Your task to perform on an android device: set the stopwatch Image 0: 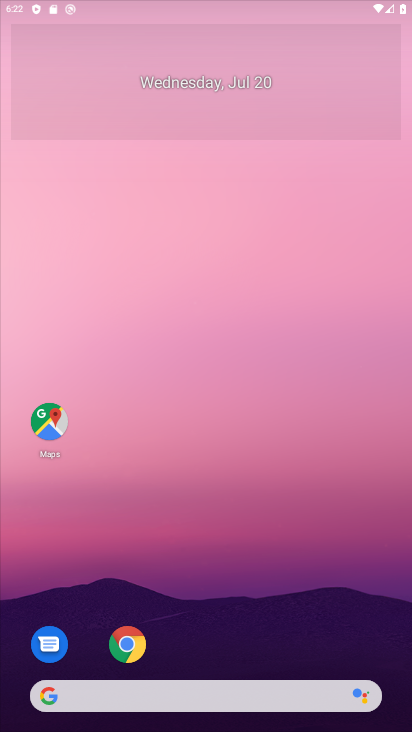
Step 0: press home button
Your task to perform on an android device: set the stopwatch Image 1: 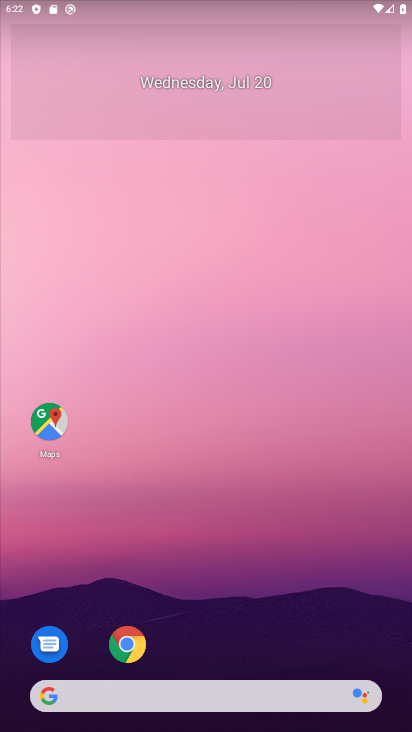
Step 1: drag from (286, 546) to (292, 177)
Your task to perform on an android device: set the stopwatch Image 2: 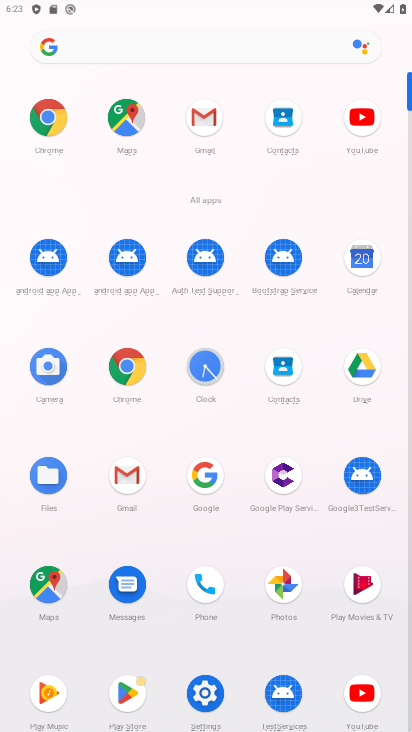
Step 2: click (197, 364)
Your task to perform on an android device: set the stopwatch Image 3: 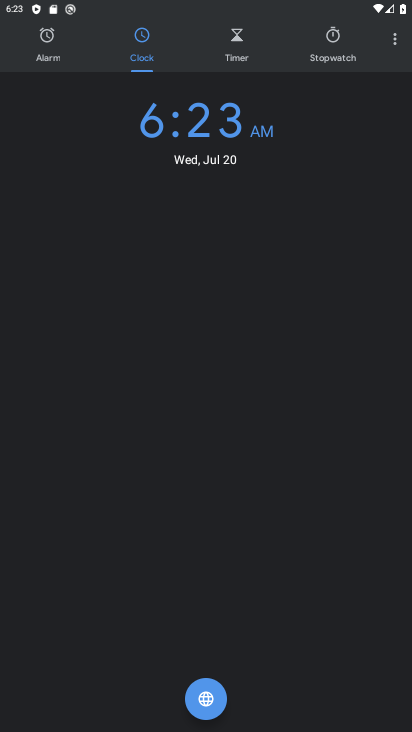
Step 3: click (340, 49)
Your task to perform on an android device: set the stopwatch Image 4: 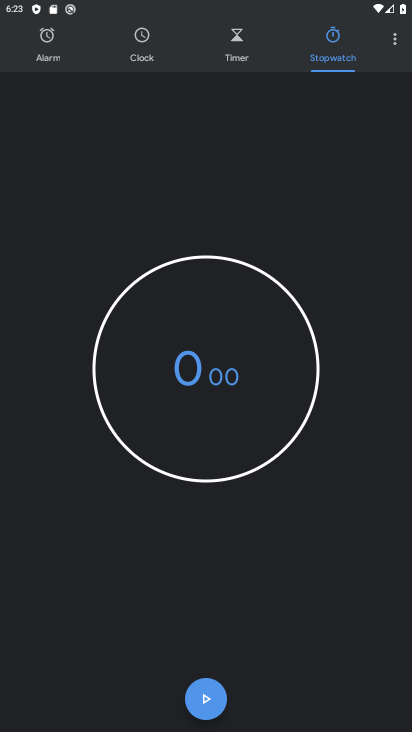
Step 4: click (208, 688)
Your task to perform on an android device: set the stopwatch Image 5: 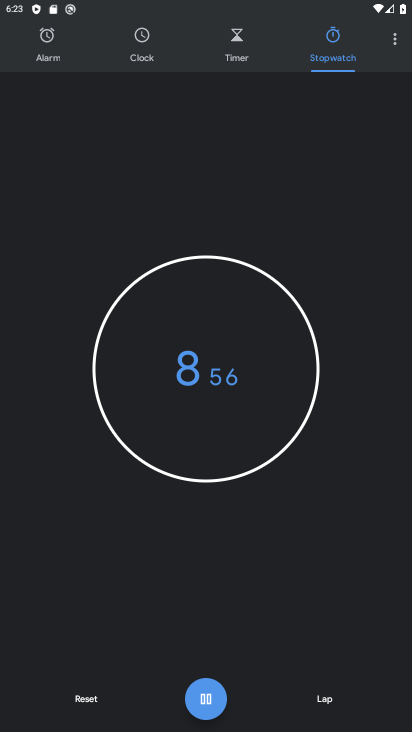
Step 5: task complete